Your task to perform on an android device: Is it going to rain this weekend? Image 0: 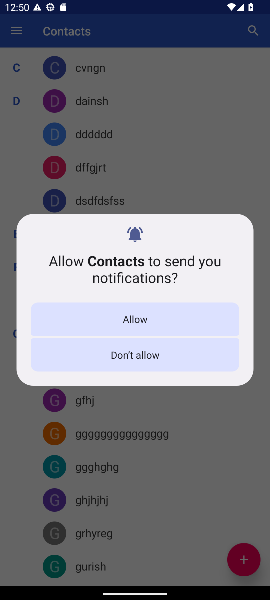
Step 0: press back button
Your task to perform on an android device: Is it going to rain this weekend? Image 1: 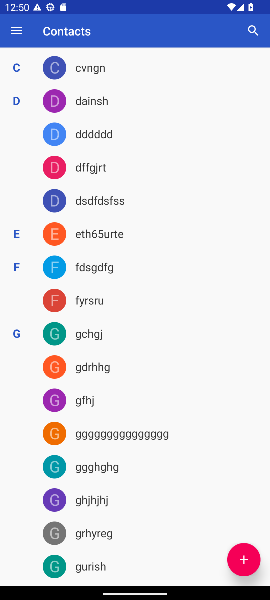
Step 1: press home button
Your task to perform on an android device: Is it going to rain this weekend? Image 2: 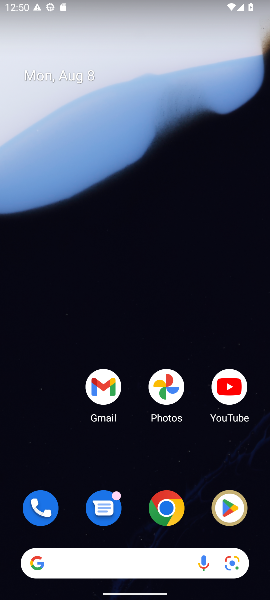
Step 2: click (113, 565)
Your task to perform on an android device: Is it going to rain this weekend? Image 3: 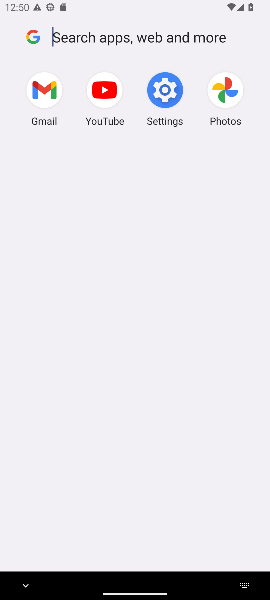
Step 3: type "weather"
Your task to perform on an android device: Is it going to rain this weekend? Image 4: 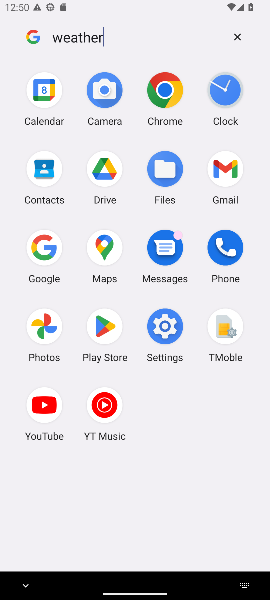
Step 4: click (43, 252)
Your task to perform on an android device: Is it going to rain this weekend? Image 5: 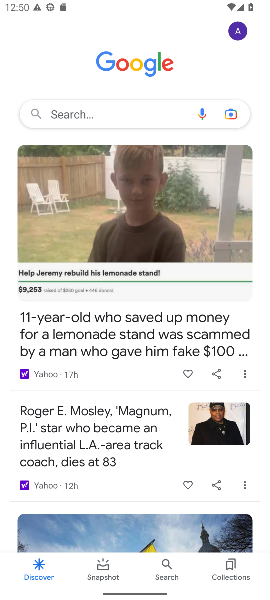
Step 5: click (128, 108)
Your task to perform on an android device: Is it going to rain this weekend? Image 6: 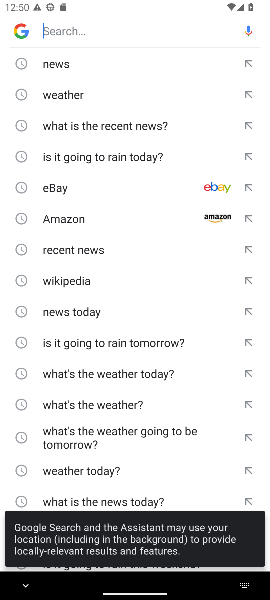
Step 6: click (73, 95)
Your task to perform on an android device: Is it going to rain this weekend? Image 7: 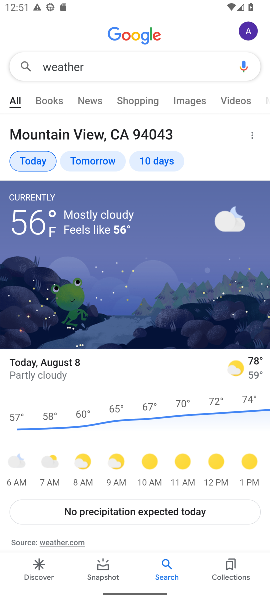
Step 7: click (155, 156)
Your task to perform on an android device: Is it going to rain this weekend? Image 8: 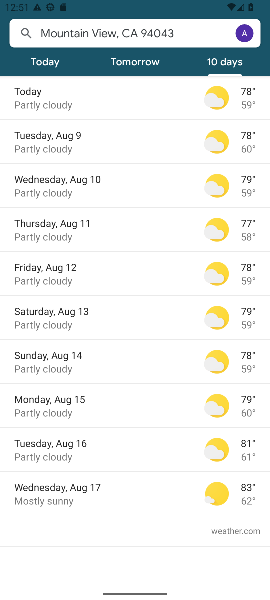
Step 8: task complete